Your task to perform on an android device: What's the weather going to be this weekend? Image 0: 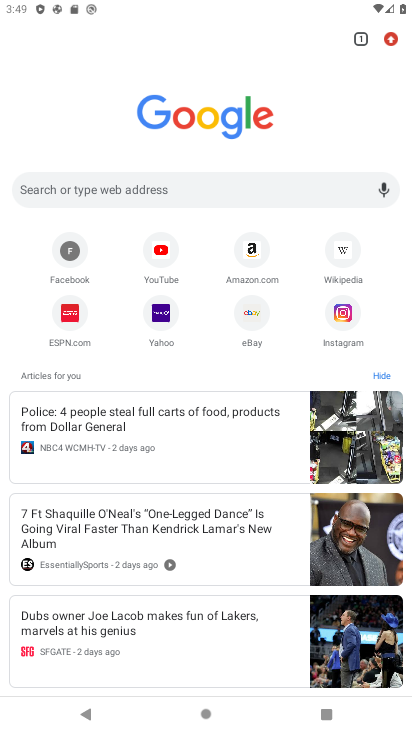
Step 0: click (282, 180)
Your task to perform on an android device: What's the weather going to be this weekend? Image 1: 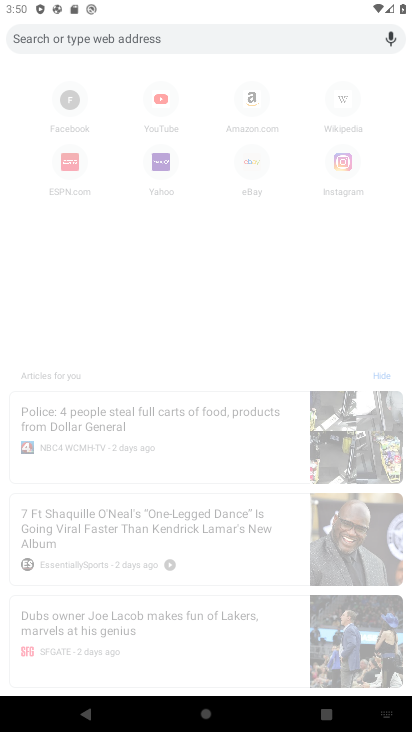
Step 1: type "saturday weather"
Your task to perform on an android device: What's the weather going to be this weekend? Image 2: 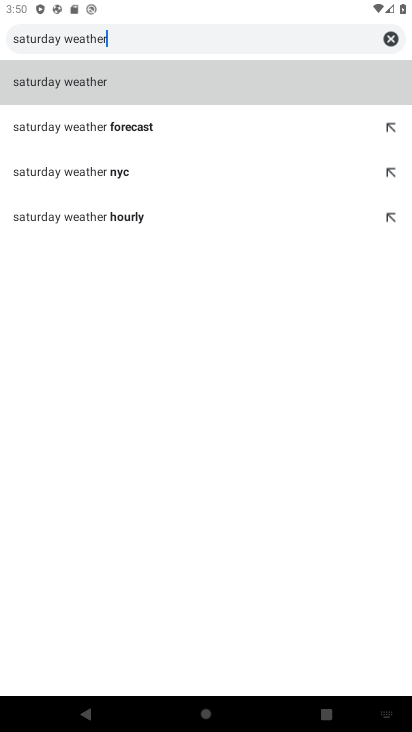
Step 2: click (173, 87)
Your task to perform on an android device: What's the weather going to be this weekend? Image 3: 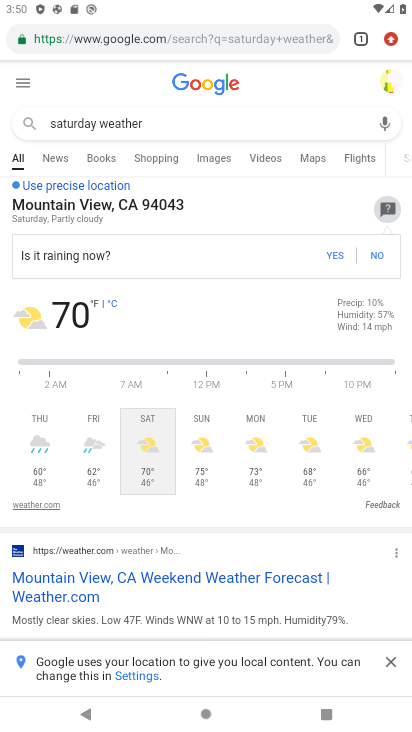
Step 3: task complete